Your task to perform on an android device: toggle airplane mode Image 0: 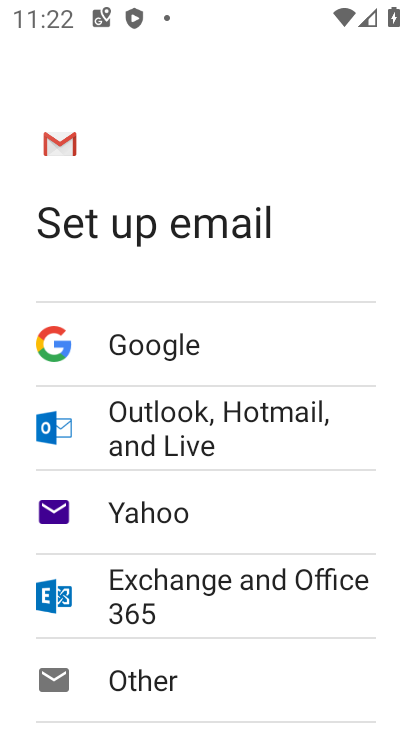
Step 0: press home button
Your task to perform on an android device: toggle airplane mode Image 1: 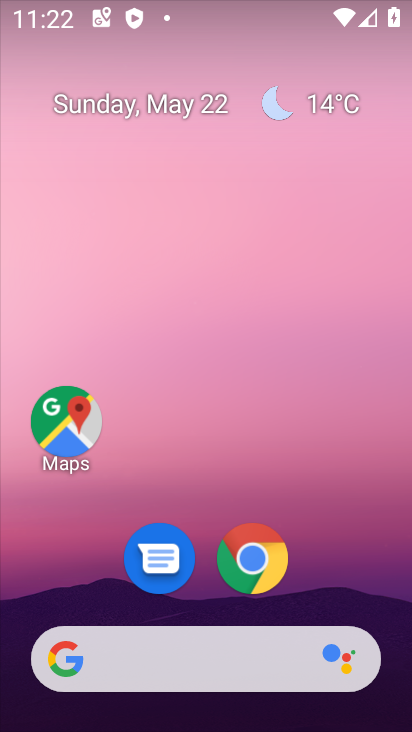
Step 1: drag from (366, 593) to (247, 11)
Your task to perform on an android device: toggle airplane mode Image 2: 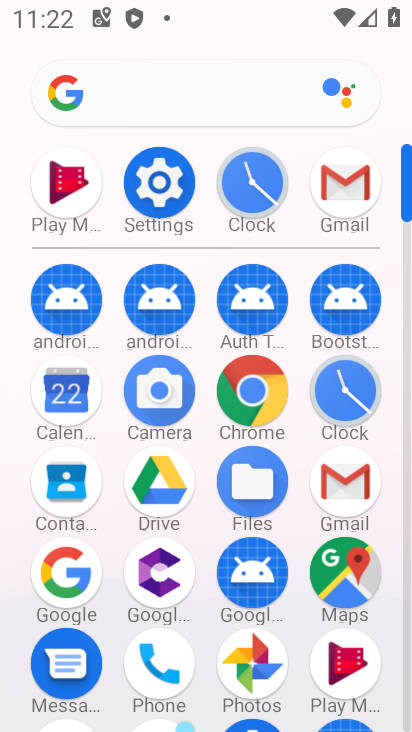
Step 2: click (169, 193)
Your task to perform on an android device: toggle airplane mode Image 3: 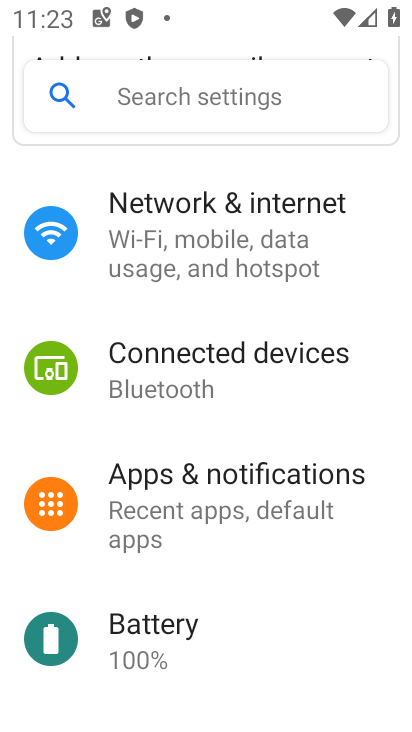
Step 3: click (241, 253)
Your task to perform on an android device: toggle airplane mode Image 4: 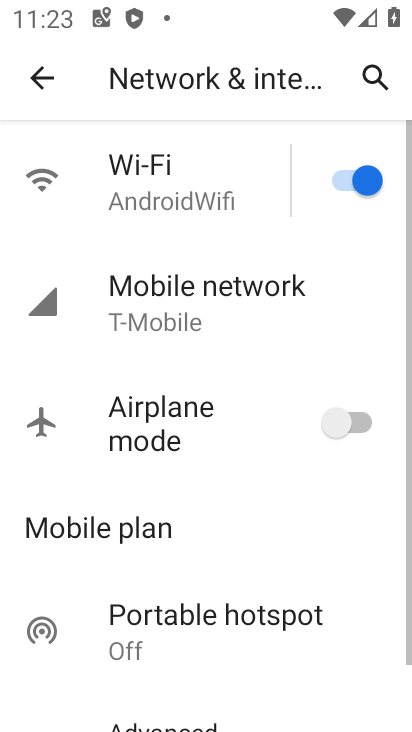
Step 4: click (326, 425)
Your task to perform on an android device: toggle airplane mode Image 5: 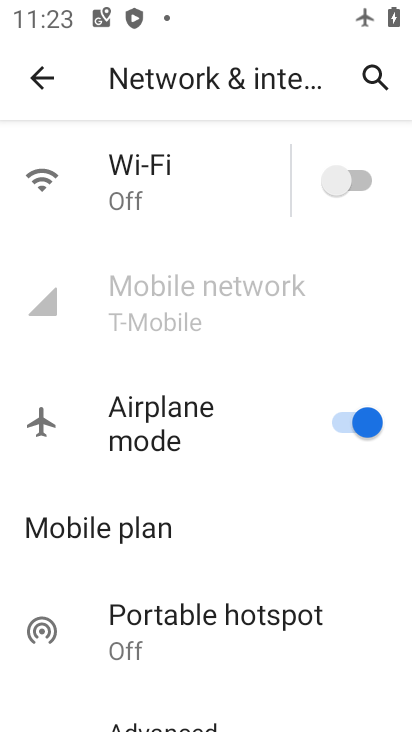
Step 5: task complete